Your task to perform on an android device: Go to Reddit.com Image 0: 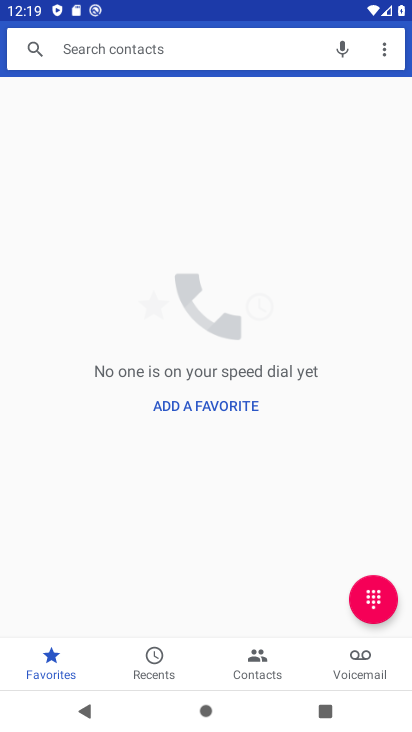
Step 0: press back button
Your task to perform on an android device: Go to Reddit.com Image 1: 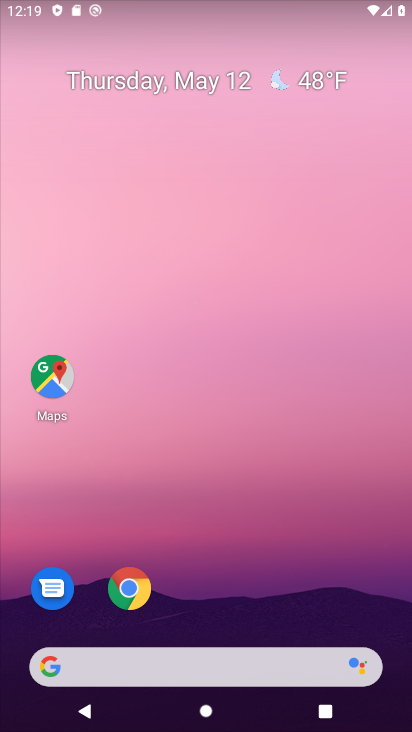
Step 1: drag from (234, 611) to (73, 22)
Your task to perform on an android device: Go to Reddit.com Image 2: 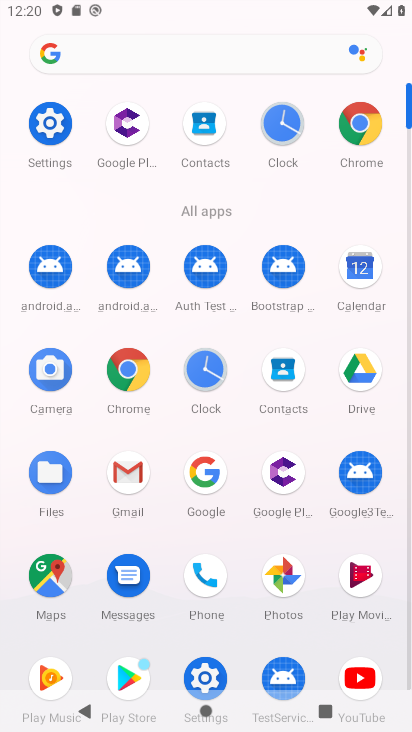
Step 2: click (126, 370)
Your task to perform on an android device: Go to Reddit.com Image 3: 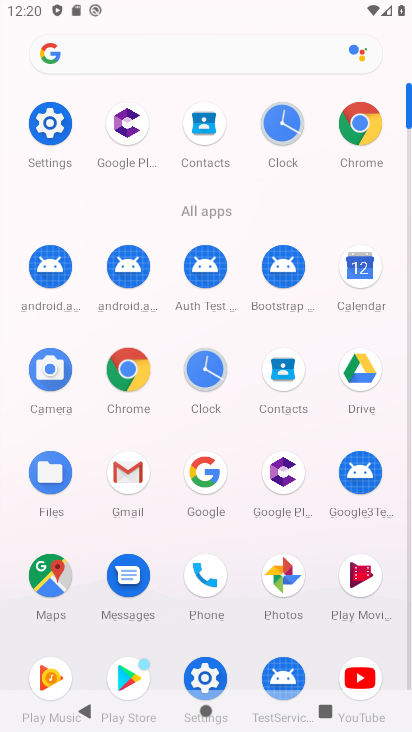
Step 3: click (127, 370)
Your task to perform on an android device: Go to Reddit.com Image 4: 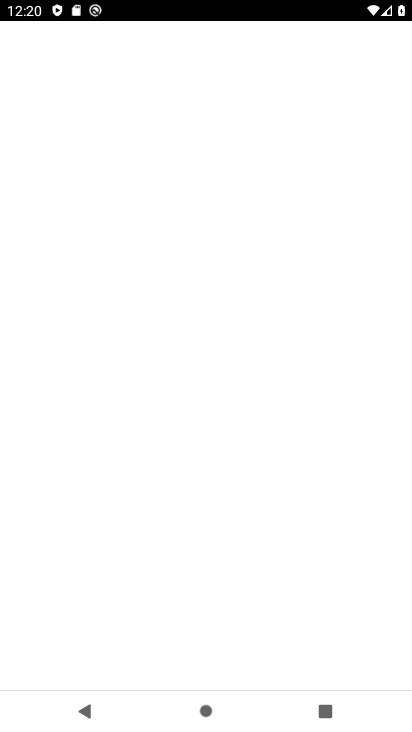
Step 4: click (124, 367)
Your task to perform on an android device: Go to Reddit.com Image 5: 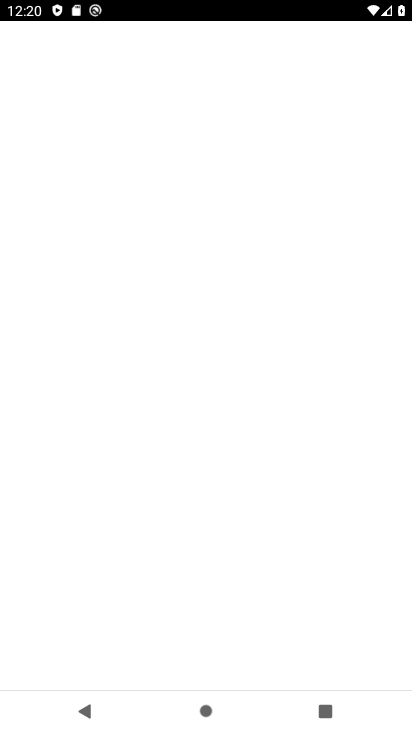
Step 5: click (119, 367)
Your task to perform on an android device: Go to Reddit.com Image 6: 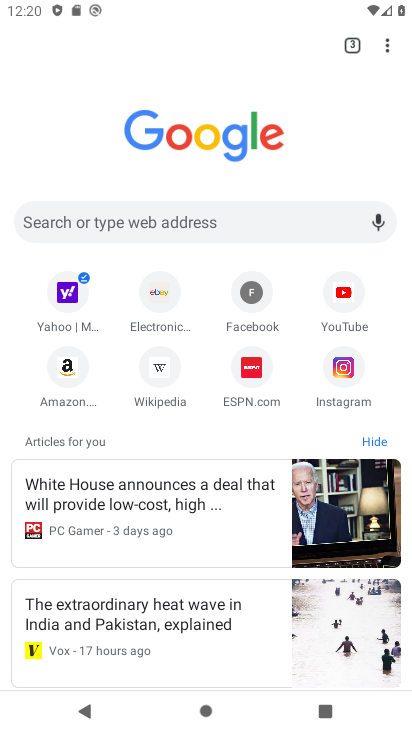
Step 6: click (86, 221)
Your task to perform on an android device: Go to Reddit.com Image 7: 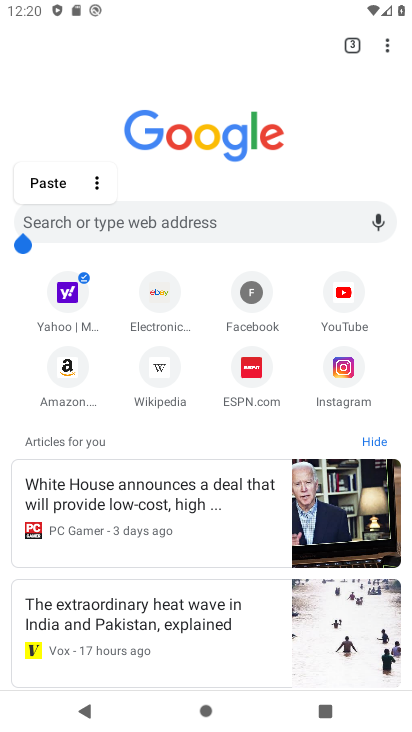
Step 7: click (49, 219)
Your task to perform on an android device: Go to Reddit.com Image 8: 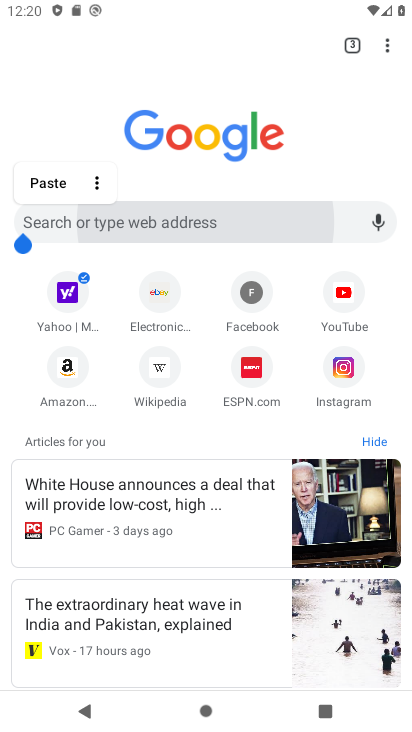
Step 8: click (49, 219)
Your task to perform on an android device: Go to Reddit.com Image 9: 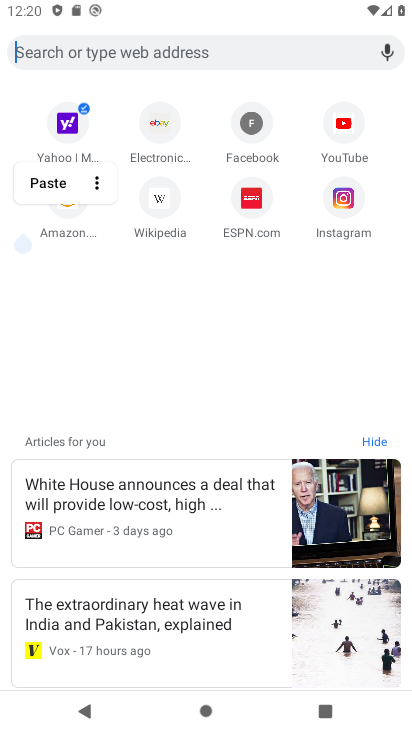
Step 9: click (49, 219)
Your task to perform on an android device: Go to Reddit.com Image 10: 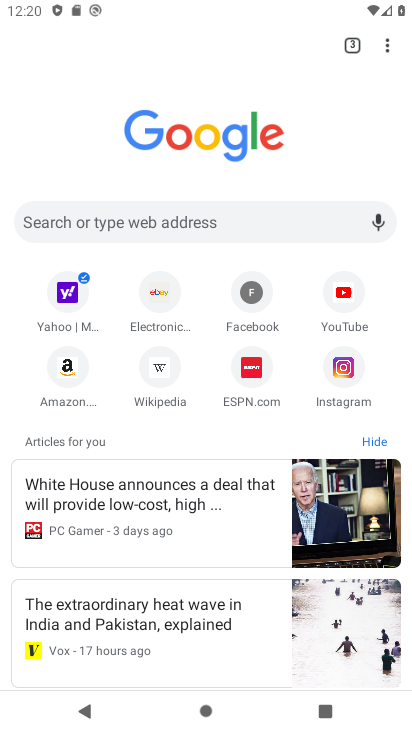
Step 10: click (53, 218)
Your task to perform on an android device: Go to Reddit.com Image 11: 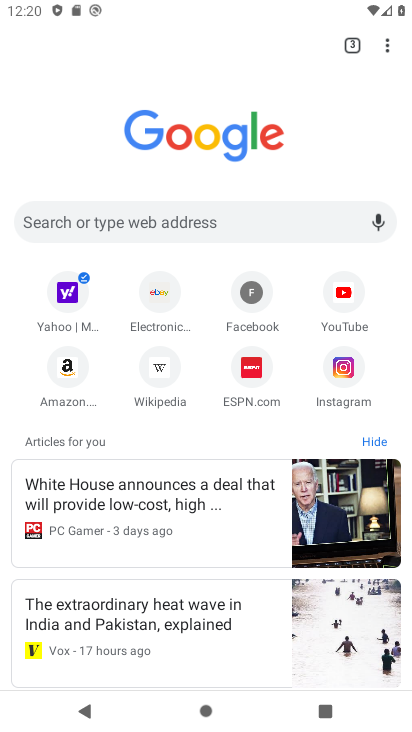
Step 11: click (53, 218)
Your task to perform on an android device: Go to Reddit.com Image 12: 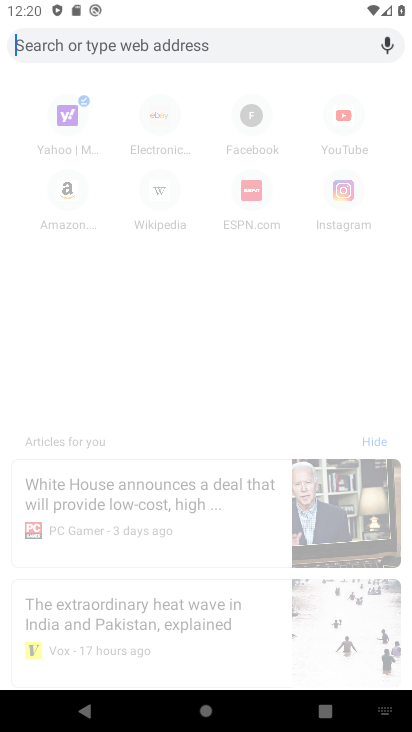
Step 12: type "reddit.com"
Your task to perform on an android device: Go to Reddit.com Image 13: 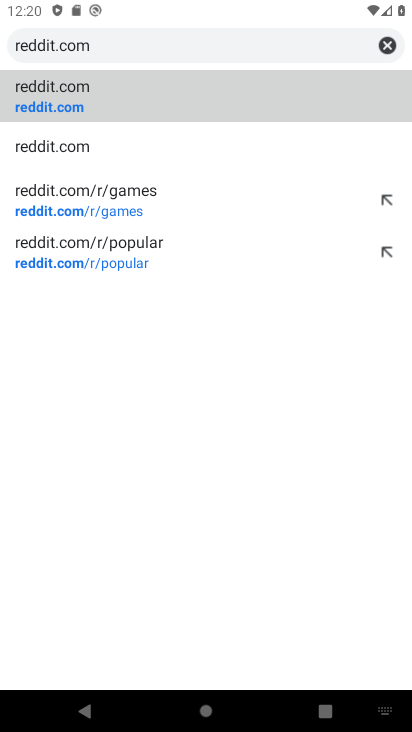
Step 13: click (49, 94)
Your task to perform on an android device: Go to Reddit.com Image 14: 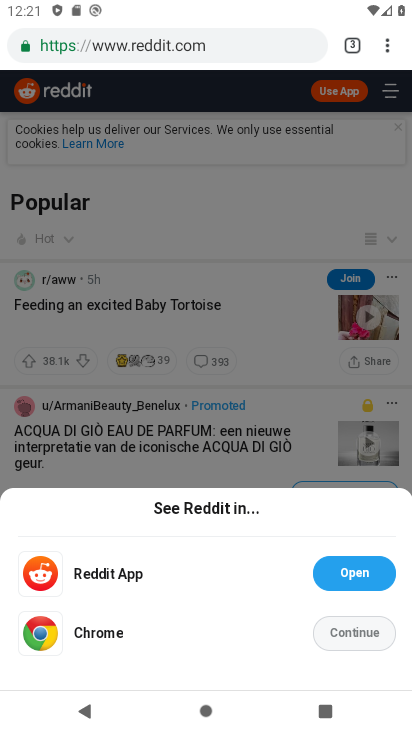
Step 14: task complete